Your task to perform on an android device: open chrome privacy settings Image 0: 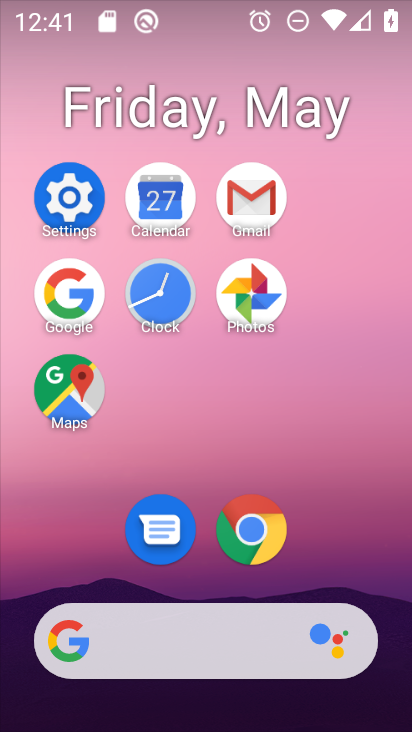
Step 0: click (248, 553)
Your task to perform on an android device: open chrome privacy settings Image 1: 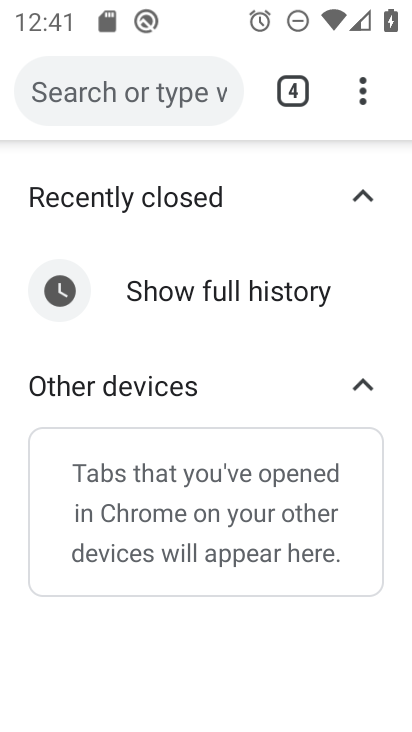
Step 1: click (379, 85)
Your task to perform on an android device: open chrome privacy settings Image 2: 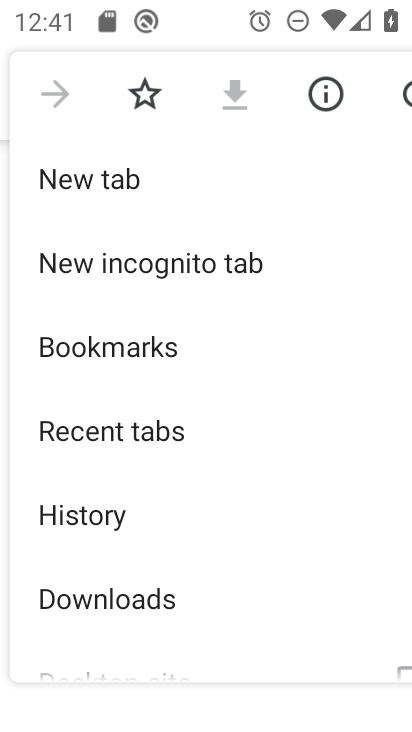
Step 2: drag from (205, 533) to (230, 187)
Your task to perform on an android device: open chrome privacy settings Image 3: 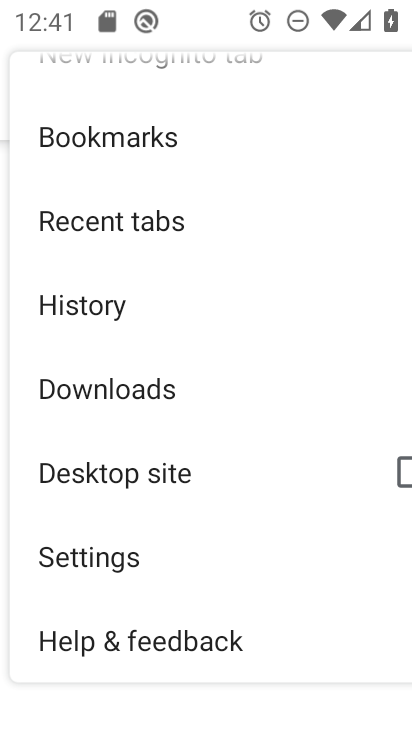
Step 3: click (181, 557)
Your task to perform on an android device: open chrome privacy settings Image 4: 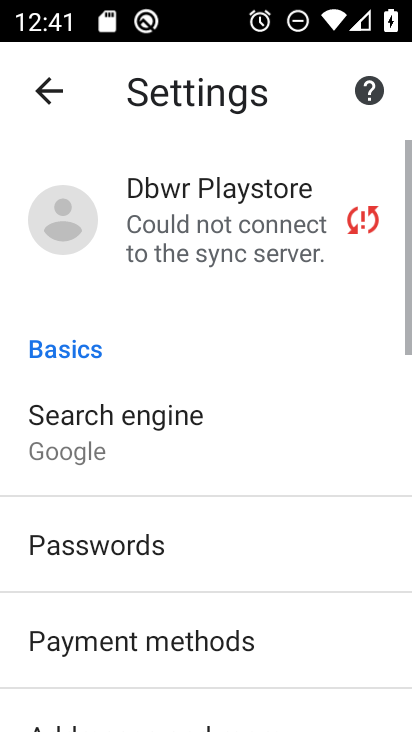
Step 4: drag from (183, 559) to (202, 161)
Your task to perform on an android device: open chrome privacy settings Image 5: 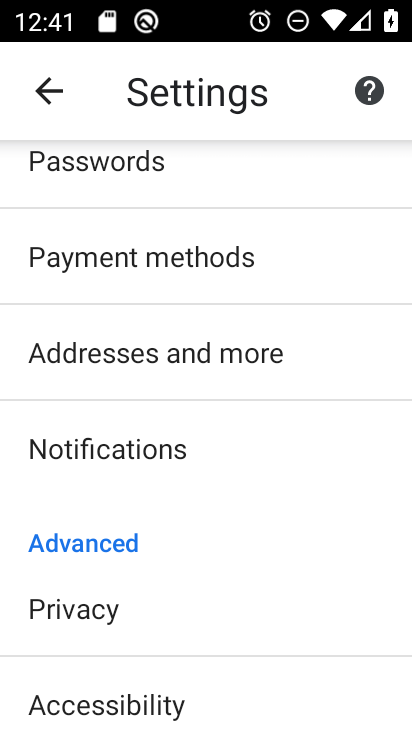
Step 5: click (149, 599)
Your task to perform on an android device: open chrome privacy settings Image 6: 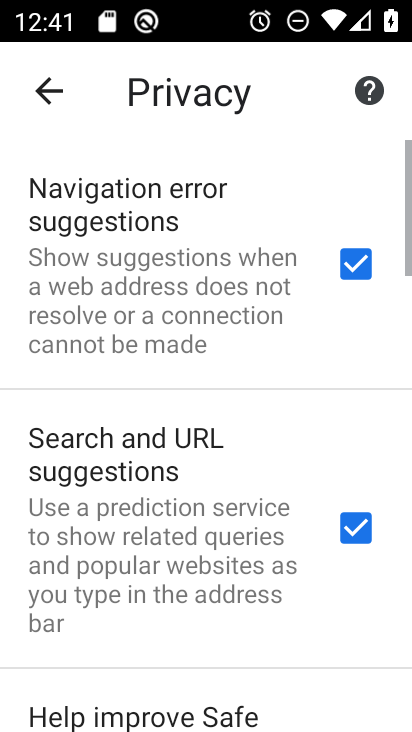
Step 6: task complete